Your task to perform on an android device: turn off notifications in google photos Image 0: 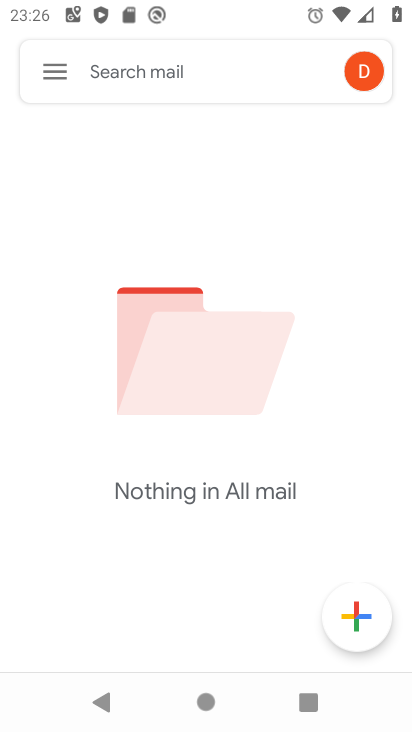
Step 0: press home button
Your task to perform on an android device: turn off notifications in google photos Image 1: 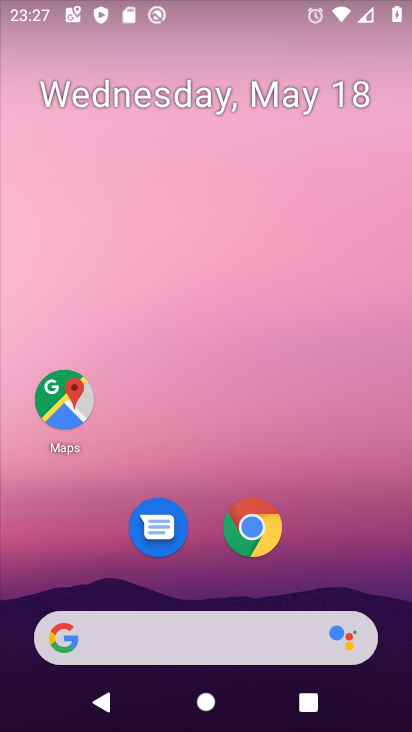
Step 1: drag from (340, 556) to (246, 2)
Your task to perform on an android device: turn off notifications in google photos Image 2: 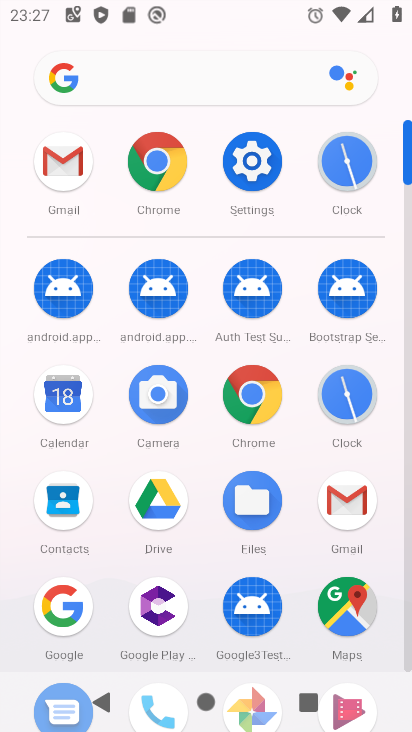
Step 2: click (411, 652)
Your task to perform on an android device: turn off notifications in google photos Image 3: 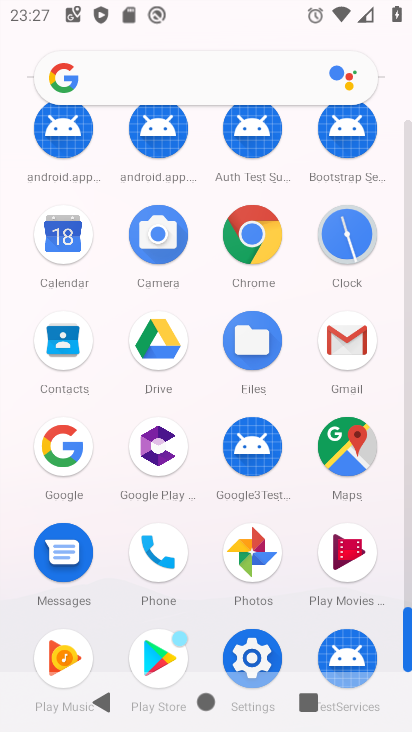
Step 3: click (260, 574)
Your task to perform on an android device: turn off notifications in google photos Image 4: 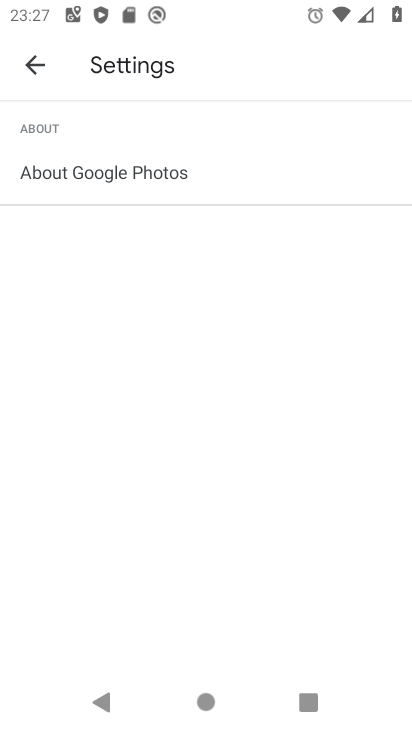
Step 4: click (44, 78)
Your task to perform on an android device: turn off notifications in google photos Image 5: 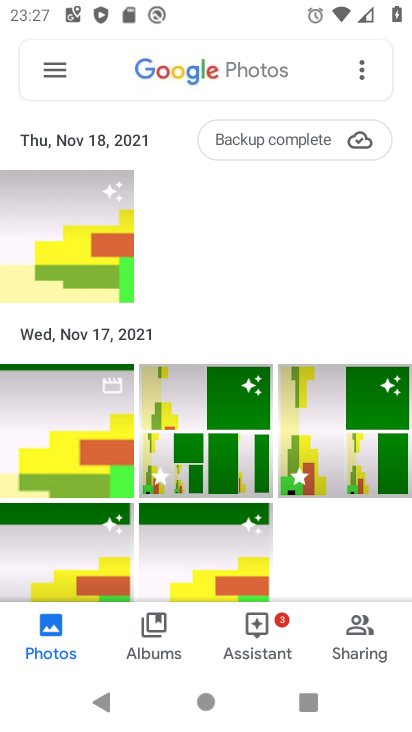
Step 5: click (44, 78)
Your task to perform on an android device: turn off notifications in google photos Image 6: 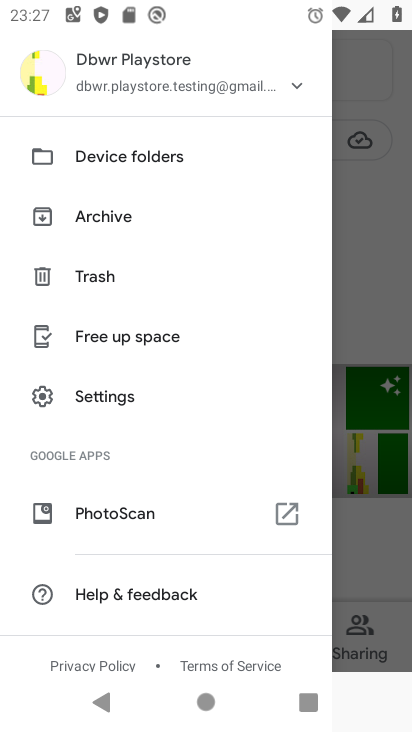
Step 6: click (116, 384)
Your task to perform on an android device: turn off notifications in google photos Image 7: 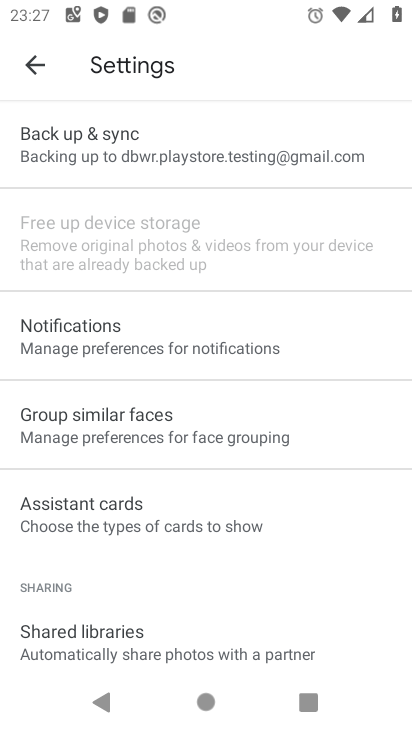
Step 7: click (131, 321)
Your task to perform on an android device: turn off notifications in google photos Image 8: 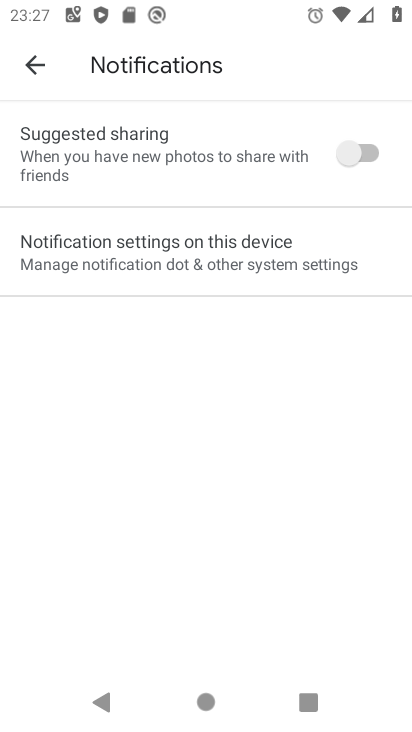
Step 8: click (343, 165)
Your task to perform on an android device: turn off notifications in google photos Image 9: 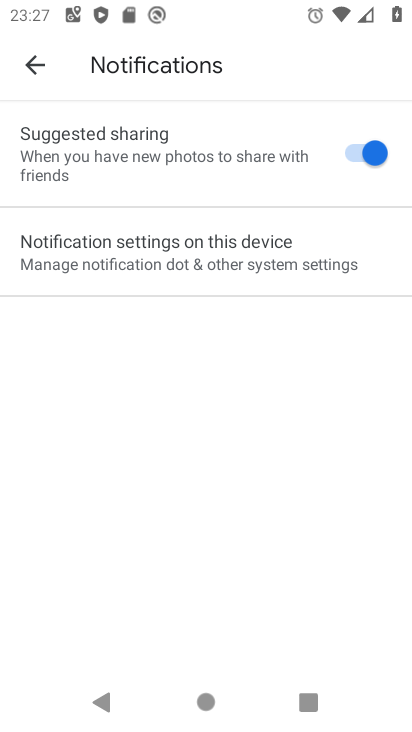
Step 9: task complete